Your task to perform on an android device: open a bookmark in the chrome app Image 0: 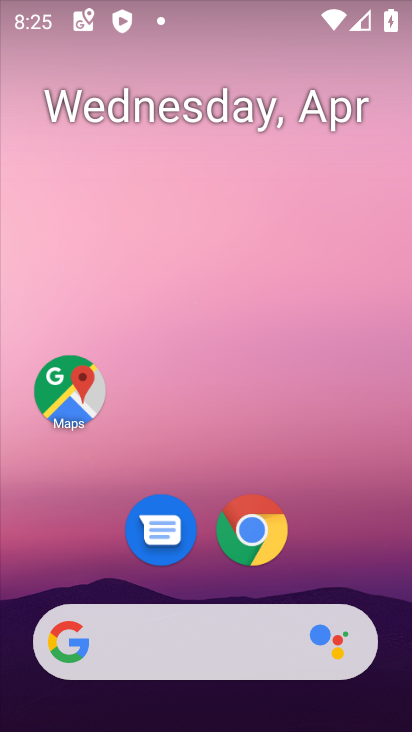
Step 0: drag from (390, 623) to (292, 226)
Your task to perform on an android device: open a bookmark in the chrome app Image 1: 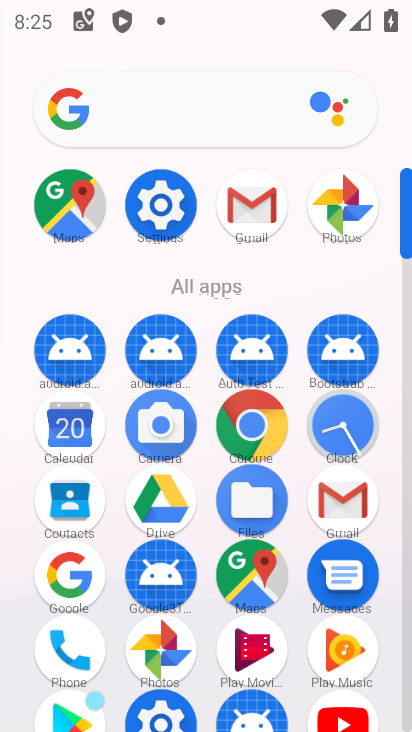
Step 1: click (266, 436)
Your task to perform on an android device: open a bookmark in the chrome app Image 2: 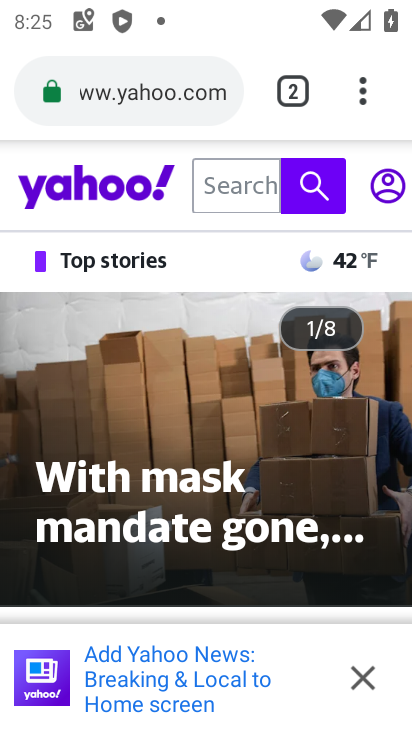
Step 2: click (362, 101)
Your task to perform on an android device: open a bookmark in the chrome app Image 3: 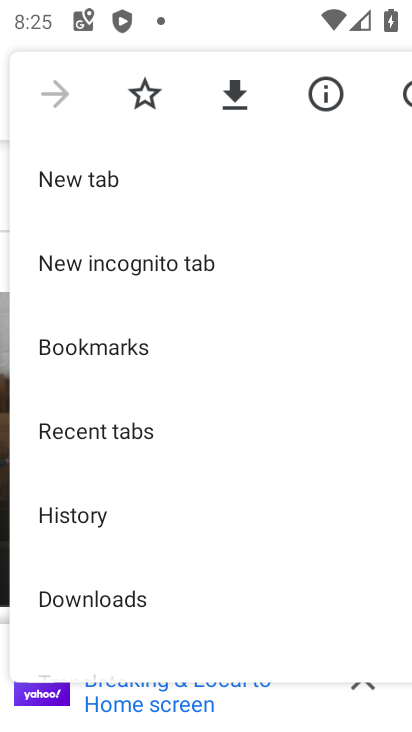
Step 3: click (156, 105)
Your task to perform on an android device: open a bookmark in the chrome app Image 4: 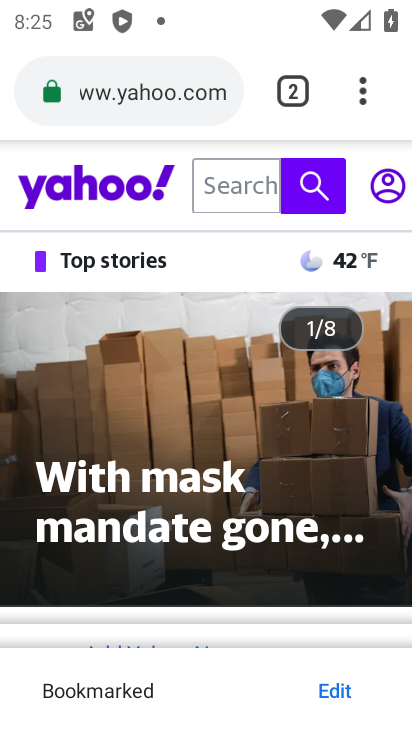
Step 4: task complete